Your task to perform on an android device: Play the last video I watched on Youtube Image 0: 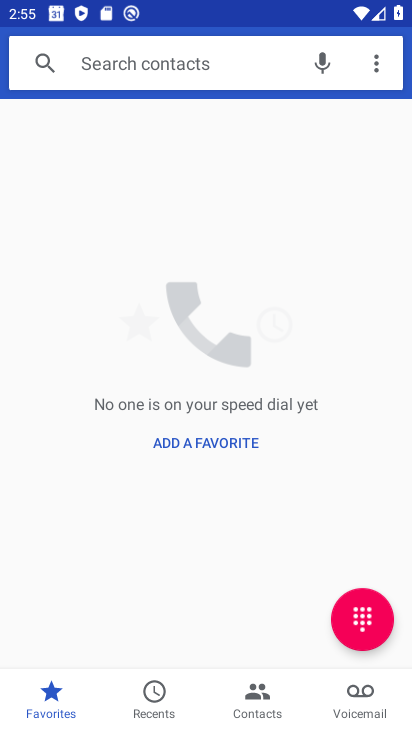
Step 0: drag from (201, 728) to (199, 252)
Your task to perform on an android device: Play the last video I watched on Youtube Image 1: 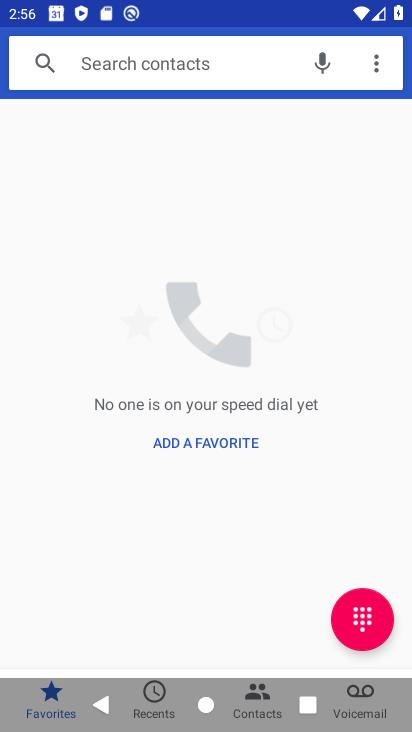
Step 1: press home button
Your task to perform on an android device: Play the last video I watched on Youtube Image 2: 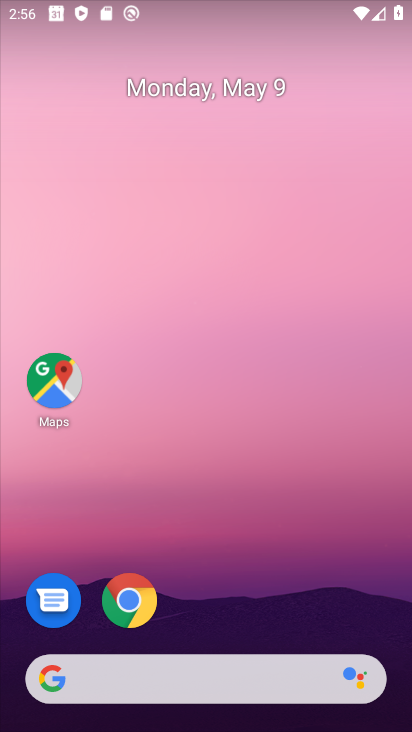
Step 2: drag from (218, 711) to (216, 92)
Your task to perform on an android device: Play the last video I watched on Youtube Image 3: 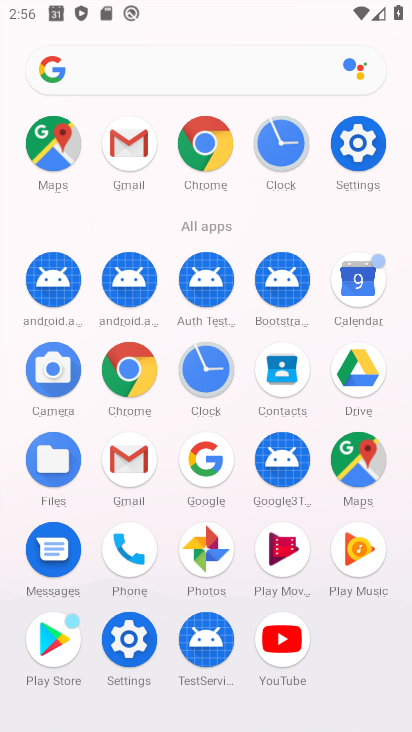
Step 3: click (294, 635)
Your task to perform on an android device: Play the last video I watched on Youtube Image 4: 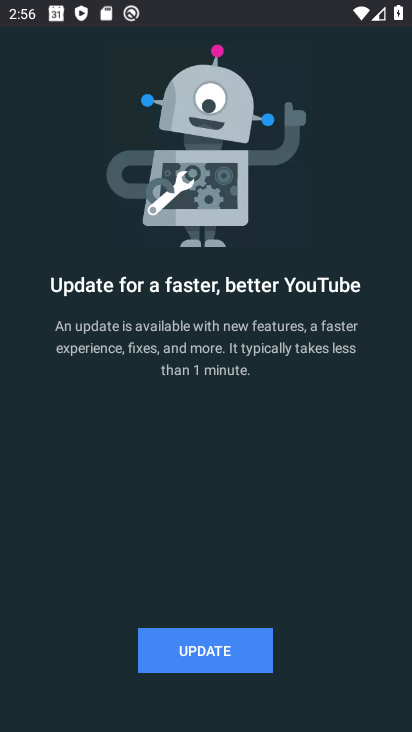
Step 4: task complete